Your task to perform on an android device: Open internet settings Image 0: 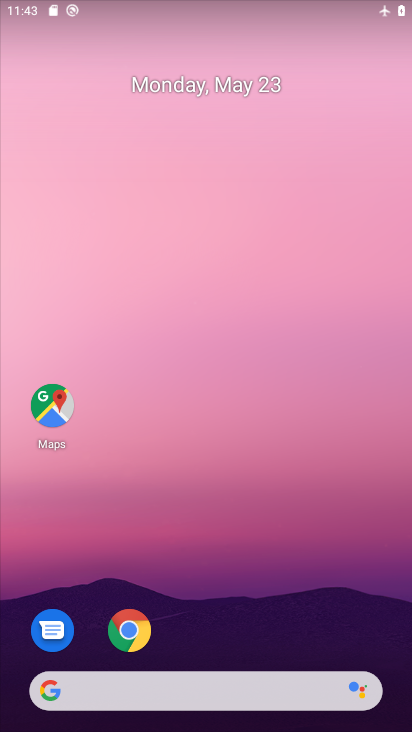
Step 0: drag from (200, 590) to (214, 255)
Your task to perform on an android device: Open internet settings Image 1: 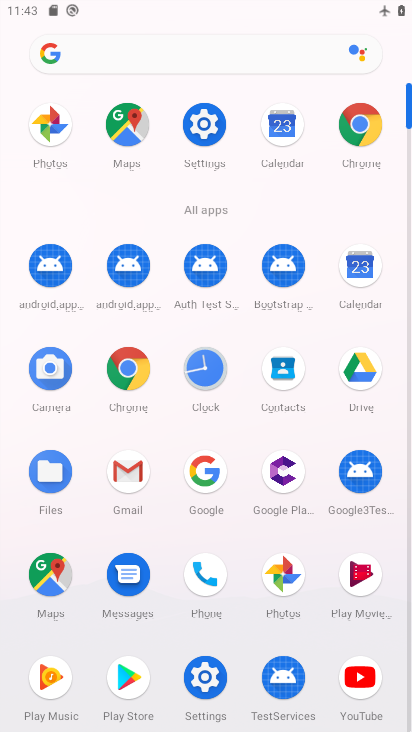
Step 1: click (208, 683)
Your task to perform on an android device: Open internet settings Image 2: 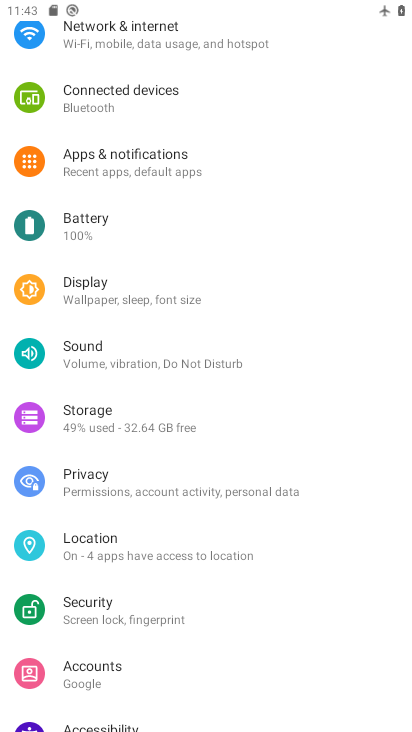
Step 2: drag from (150, 106) to (155, 266)
Your task to perform on an android device: Open internet settings Image 3: 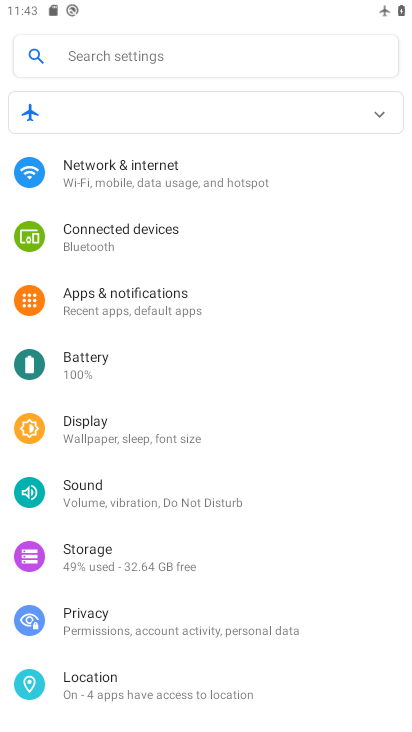
Step 3: click (156, 183)
Your task to perform on an android device: Open internet settings Image 4: 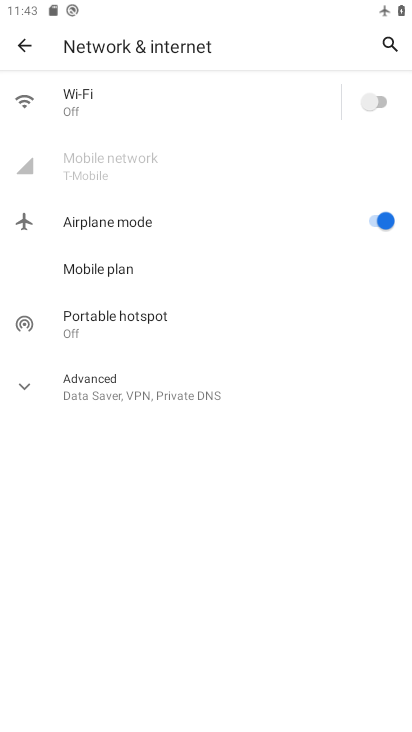
Step 4: task complete